Your task to perform on an android device: Search for Italian restaurants on Maps Image 0: 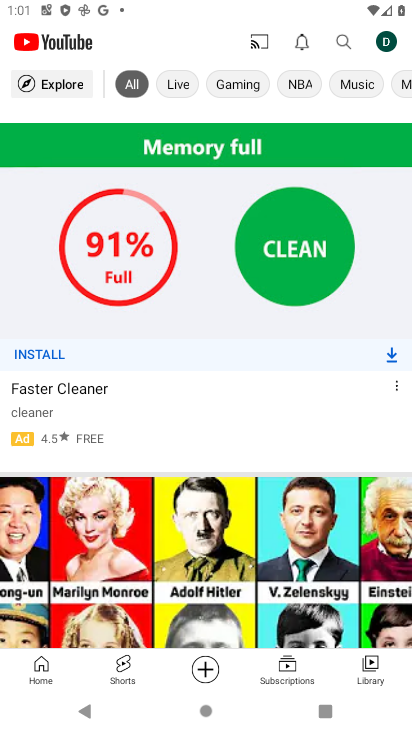
Step 0: press home button
Your task to perform on an android device: Search for Italian restaurants on Maps Image 1: 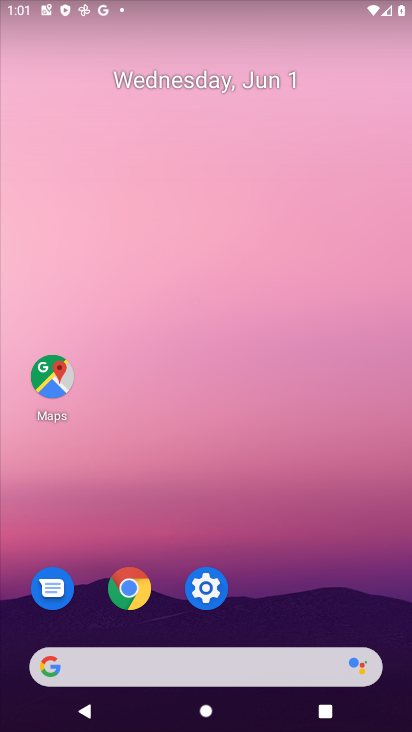
Step 1: click (74, 374)
Your task to perform on an android device: Search for Italian restaurants on Maps Image 2: 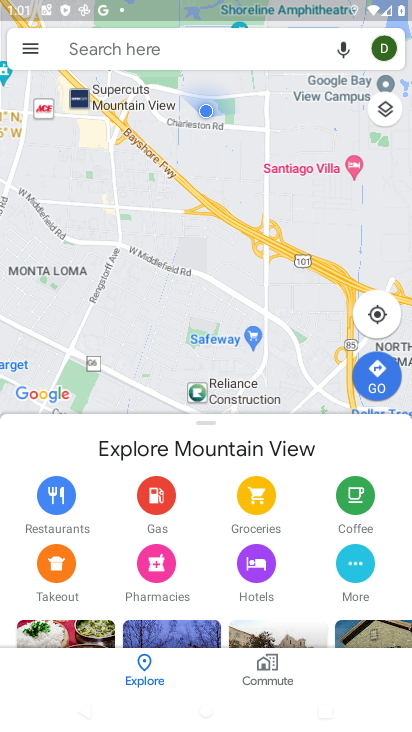
Step 2: click (150, 47)
Your task to perform on an android device: Search for Italian restaurants on Maps Image 3: 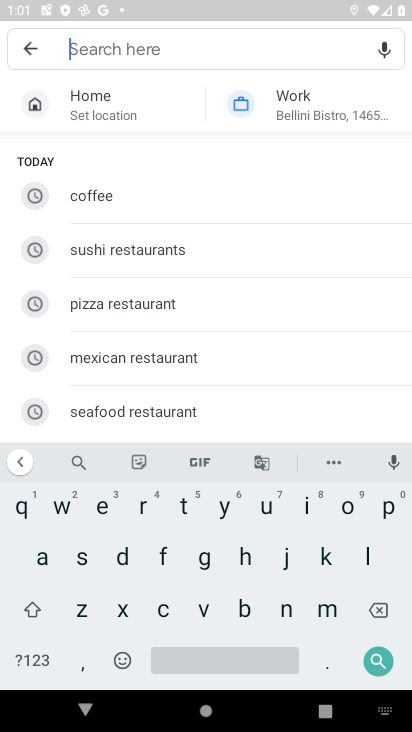
Step 3: click (301, 503)
Your task to perform on an android device: Search for Italian restaurants on Maps Image 4: 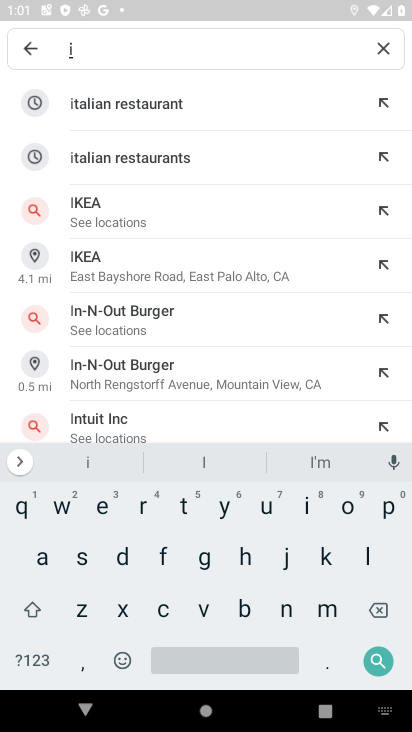
Step 4: click (179, 109)
Your task to perform on an android device: Search for Italian restaurants on Maps Image 5: 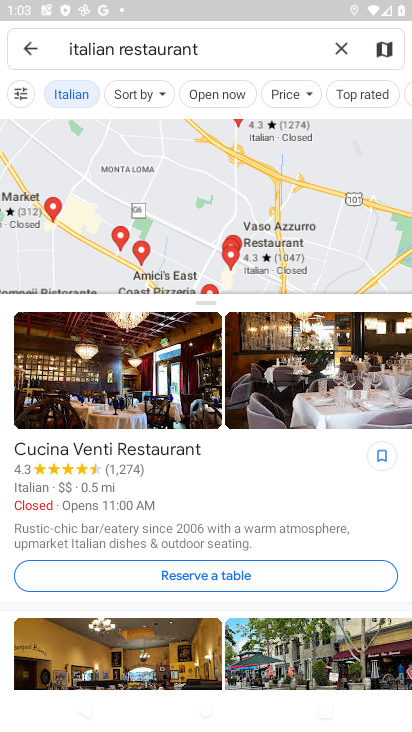
Step 5: task complete